Your task to perform on an android device: Do I have any events today? Image 0: 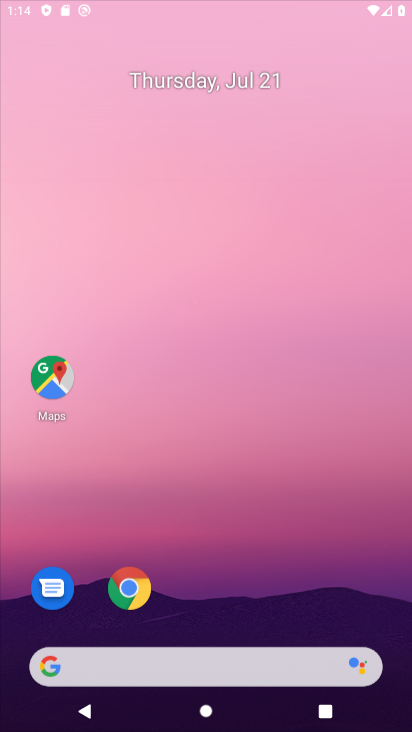
Step 0: click (230, 32)
Your task to perform on an android device: Do I have any events today? Image 1: 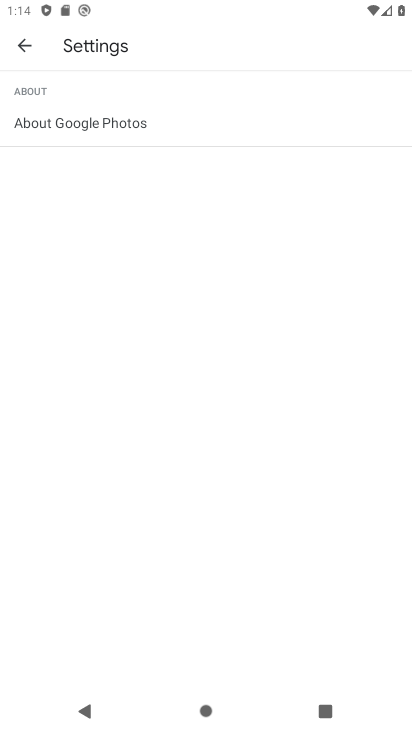
Step 1: press home button
Your task to perform on an android device: Do I have any events today? Image 2: 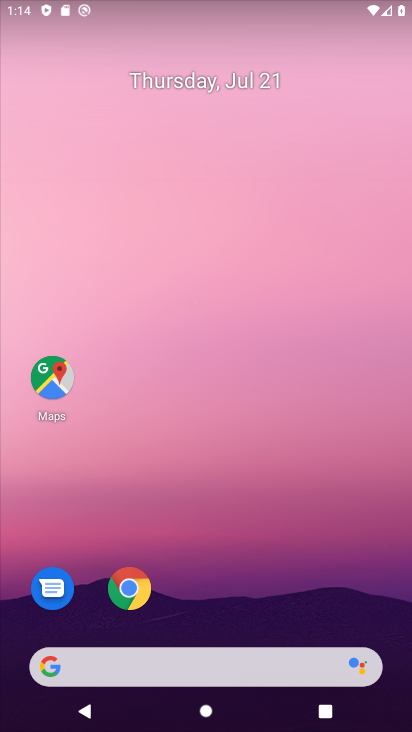
Step 2: drag from (204, 624) to (359, 654)
Your task to perform on an android device: Do I have any events today? Image 3: 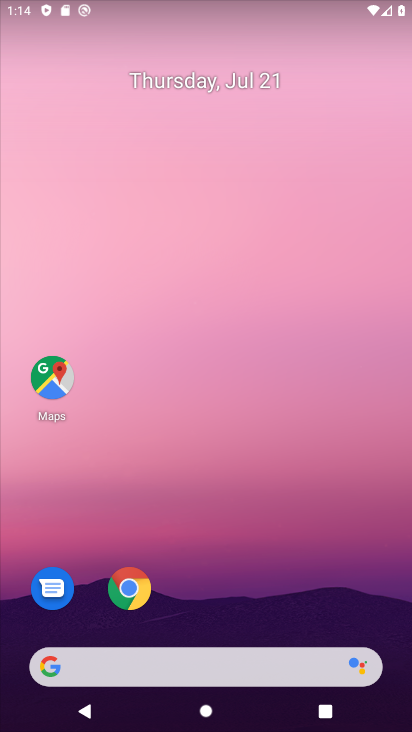
Step 3: drag from (228, 637) to (216, 53)
Your task to perform on an android device: Do I have any events today? Image 4: 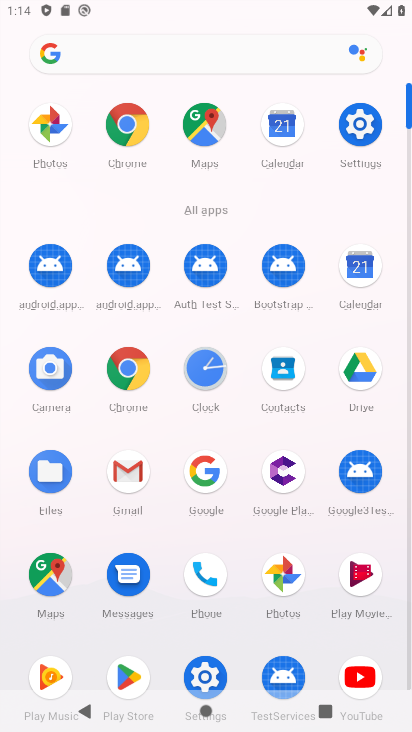
Step 4: click (266, 141)
Your task to perform on an android device: Do I have any events today? Image 5: 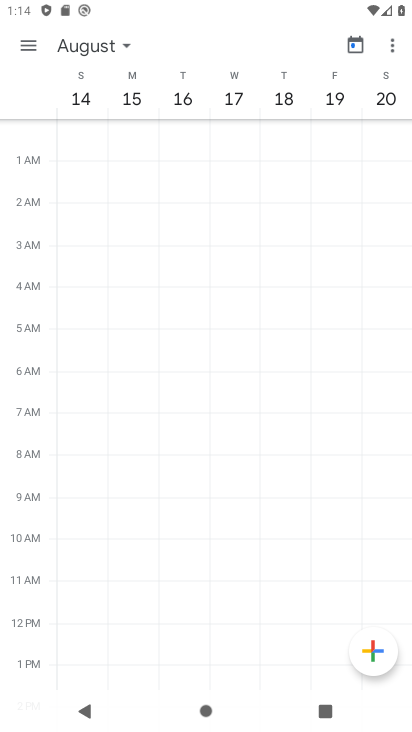
Step 5: click (365, 48)
Your task to perform on an android device: Do I have any events today? Image 6: 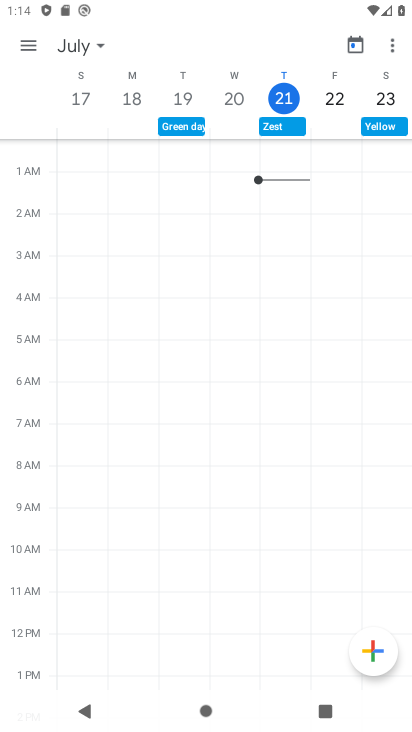
Step 6: click (284, 98)
Your task to perform on an android device: Do I have any events today? Image 7: 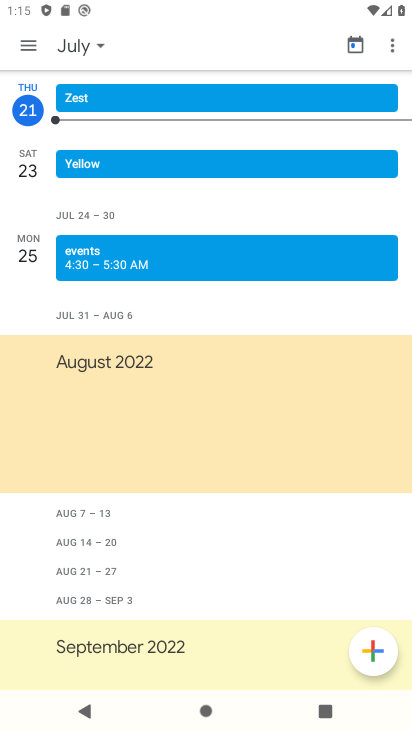
Step 7: task complete